Your task to perform on an android device: turn off wifi Image 0: 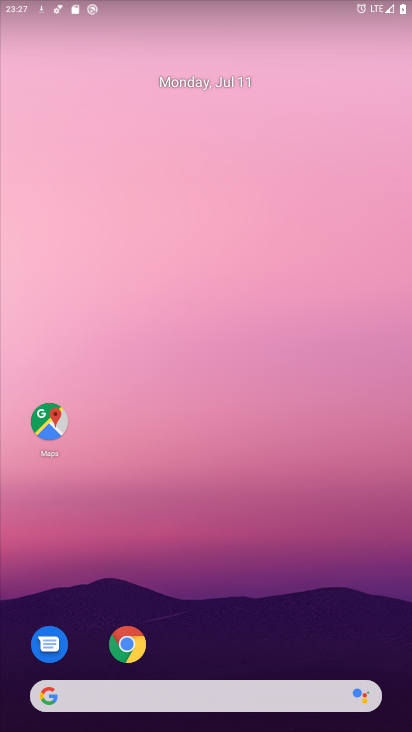
Step 0: drag from (225, 646) to (231, 206)
Your task to perform on an android device: turn off wifi Image 1: 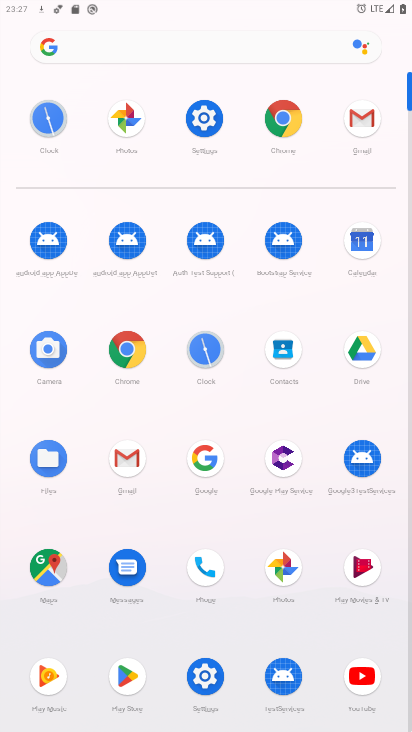
Step 1: click (201, 118)
Your task to perform on an android device: turn off wifi Image 2: 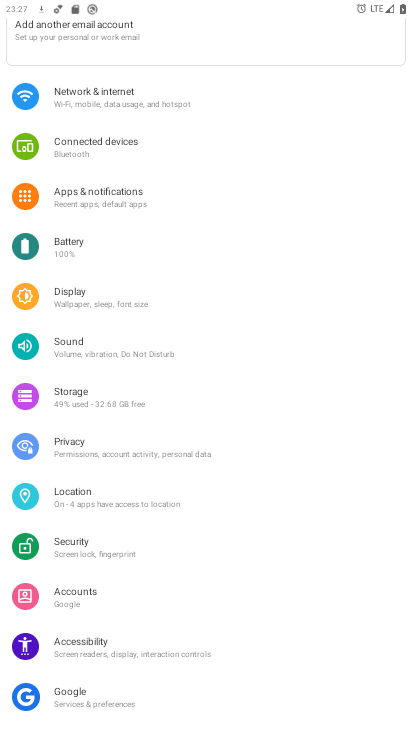
Step 2: click (129, 88)
Your task to perform on an android device: turn off wifi Image 3: 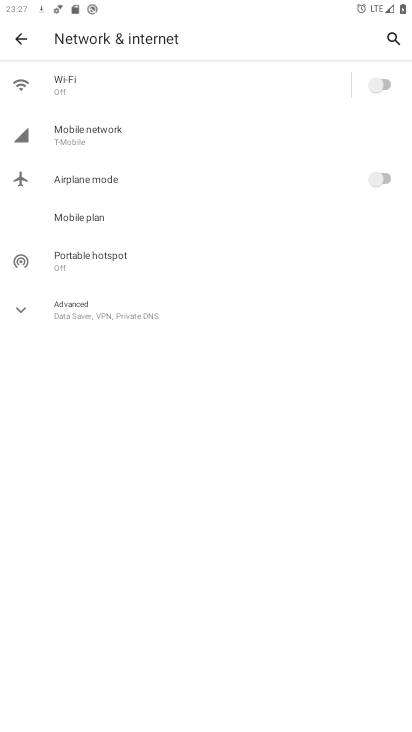
Step 3: click (108, 88)
Your task to perform on an android device: turn off wifi Image 4: 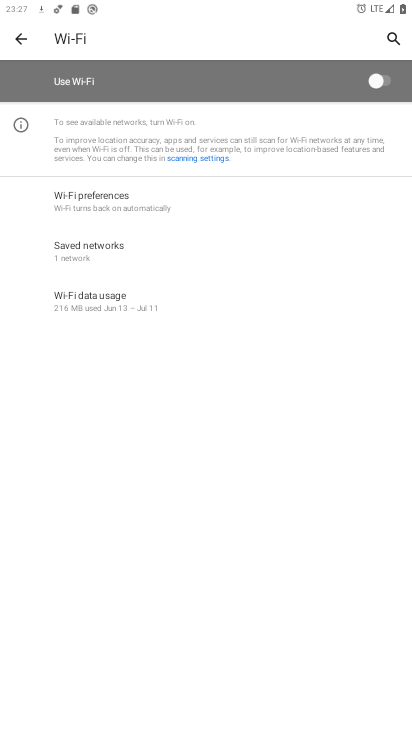
Step 4: task complete